Your task to perform on an android device: Go to wifi settings Image 0: 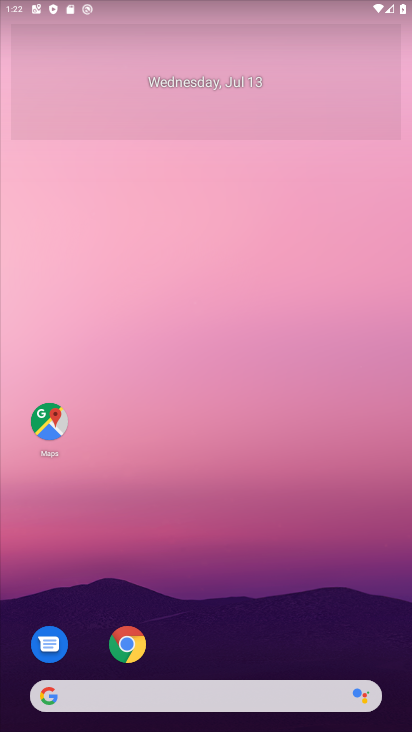
Step 0: press home button
Your task to perform on an android device: Go to wifi settings Image 1: 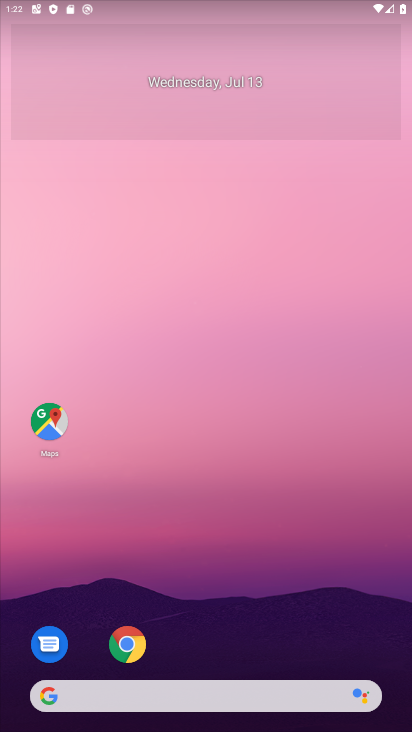
Step 1: drag from (235, 618) to (323, 31)
Your task to perform on an android device: Go to wifi settings Image 2: 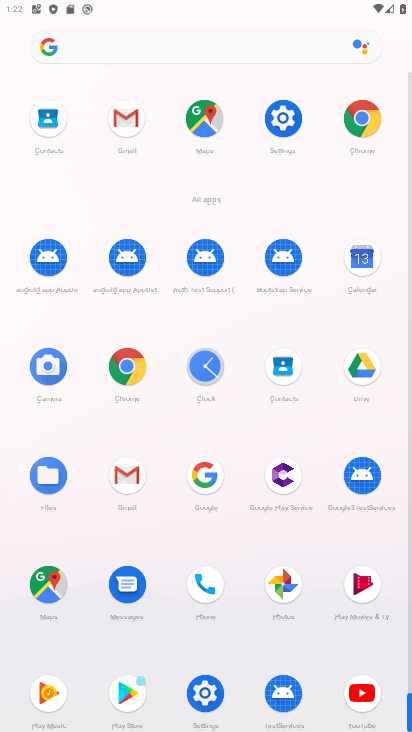
Step 2: click (288, 119)
Your task to perform on an android device: Go to wifi settings Image 3: 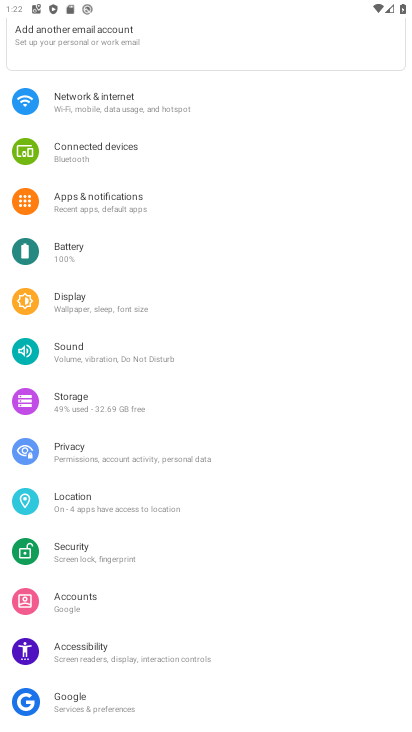
Step 3: click (138, 99)
Your task to perform on an android device: Go to wifi settings Image 4: 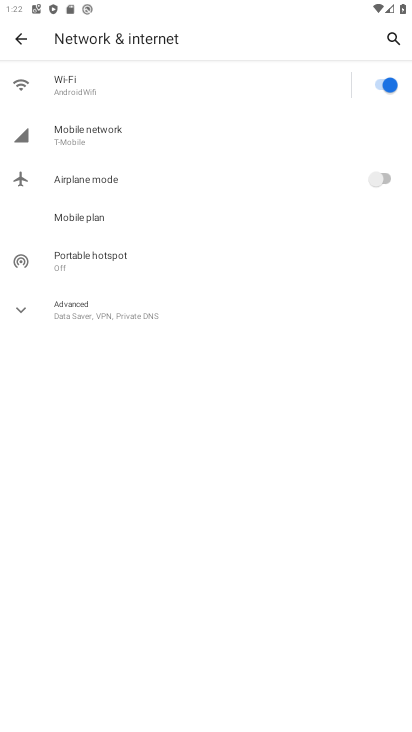
Step 4: click (138, 83)
Your task to perform on an android device: Go to wifi settings Image 5: 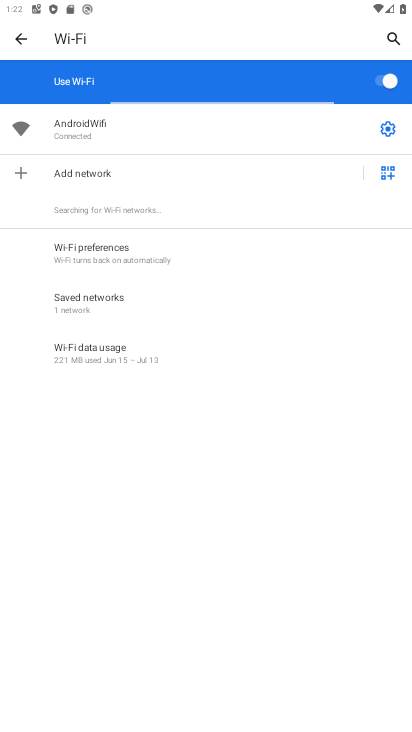
Step 5: task complete